Your task to perform on an android device: set an alarm Image 0: 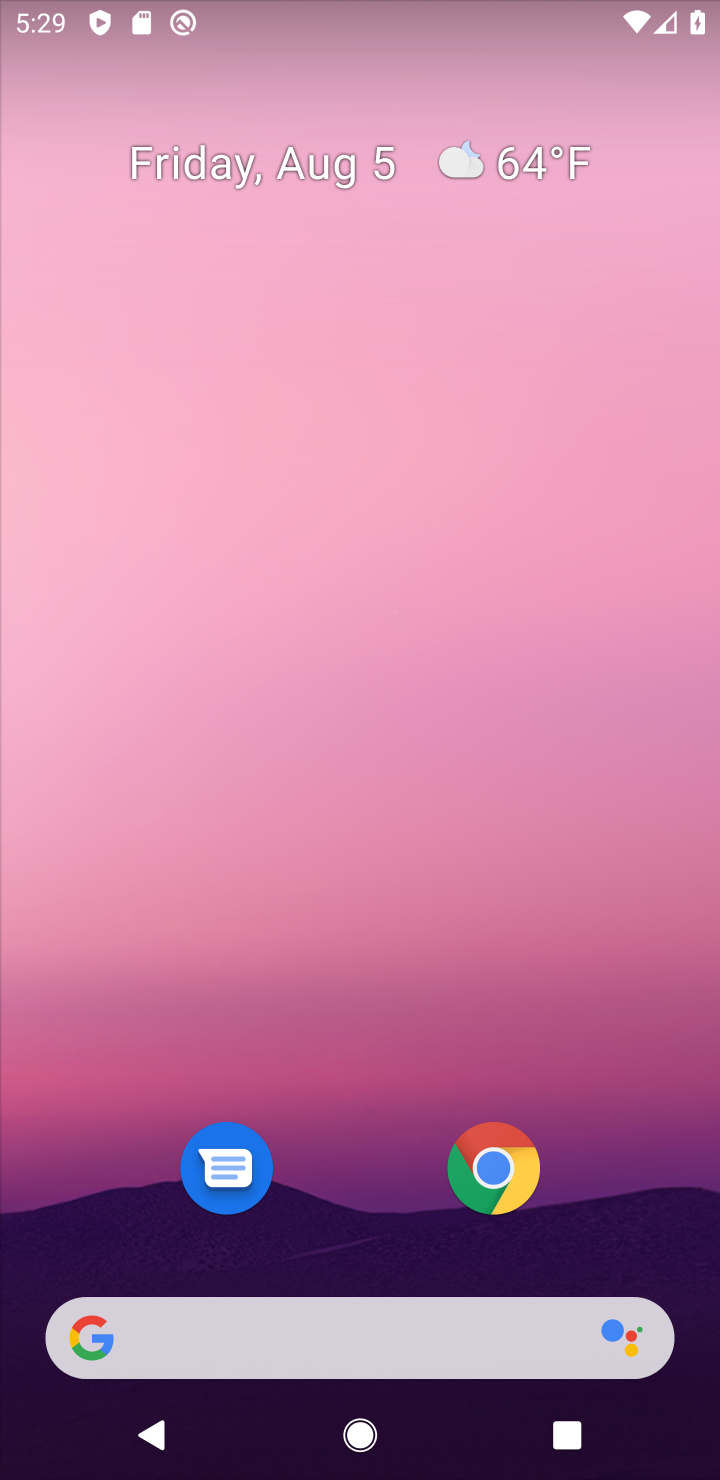
Step 0: press home button
Your task to perform on an android device: set an alarm Image 1: 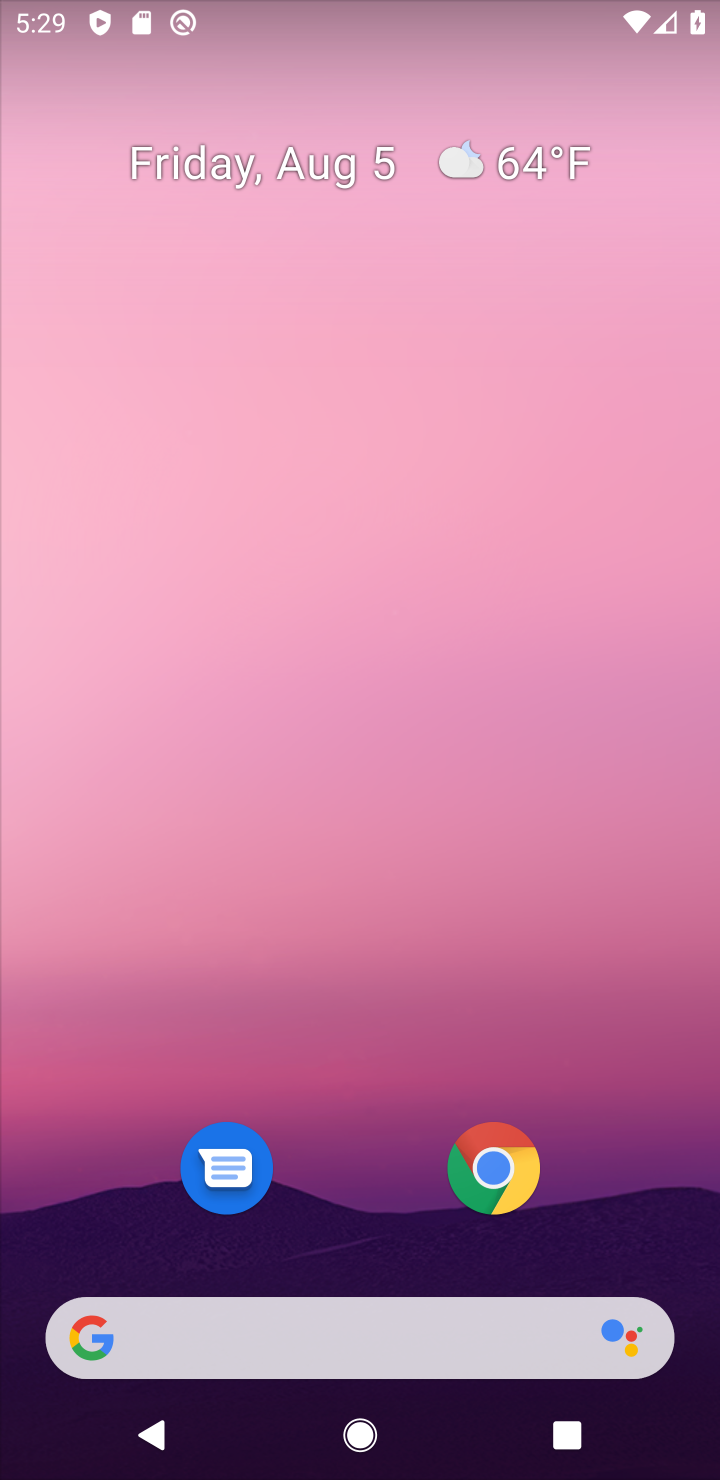
Step 1: drag from (349, 1121) to (465, 264)
Your task to perform on an android device: set an alarm Image 2: 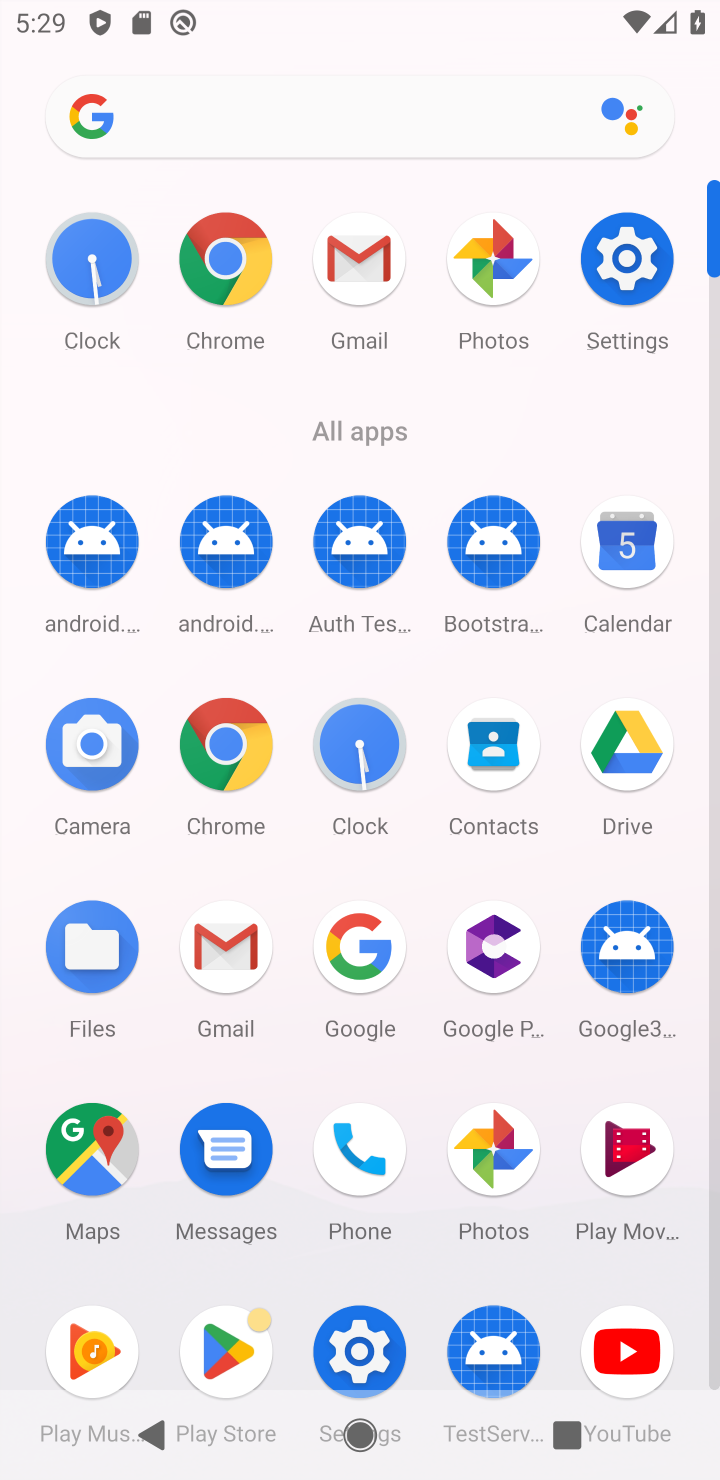
Step 2: click (75, 250)
Your task to perform on an android device: set an alarm Image 3: 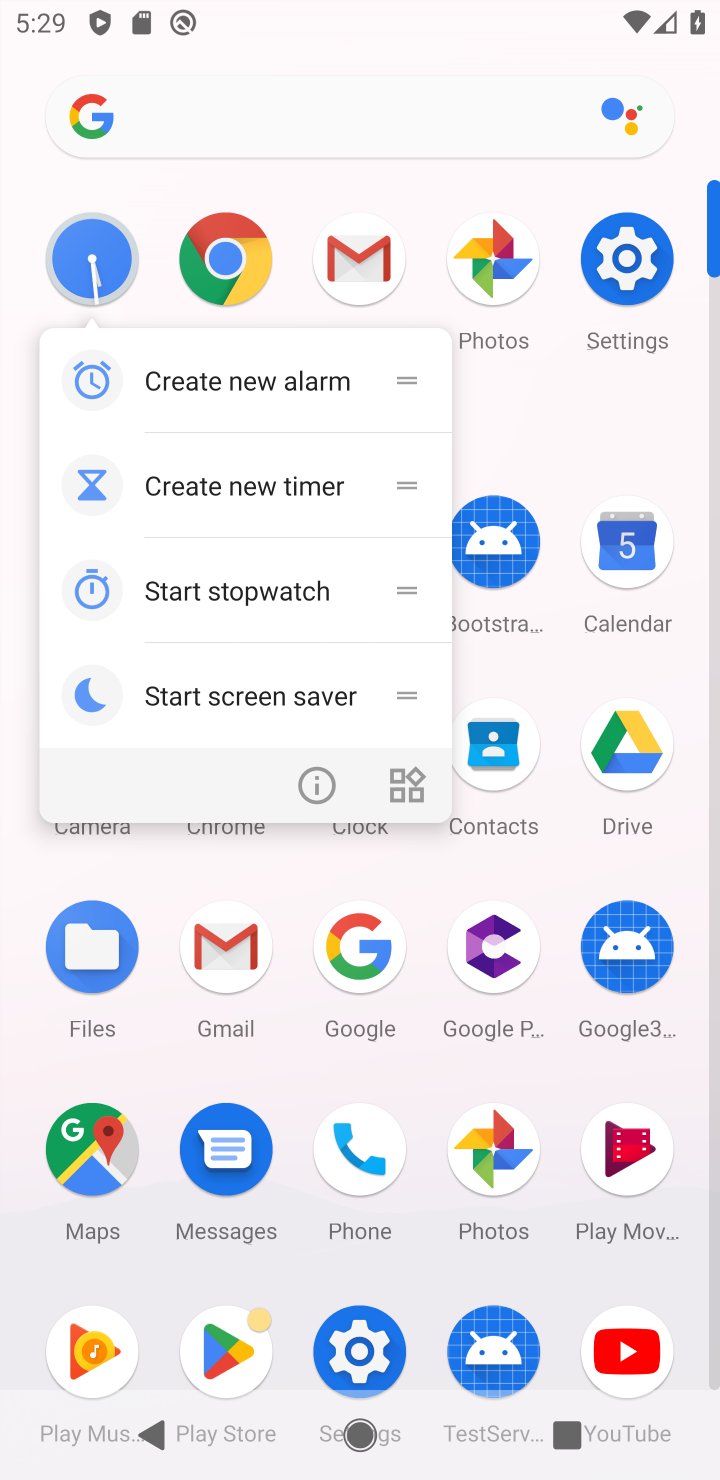
Step 3: click (75, 250)
Your task to perform on an android device: set an alarm Image 4: 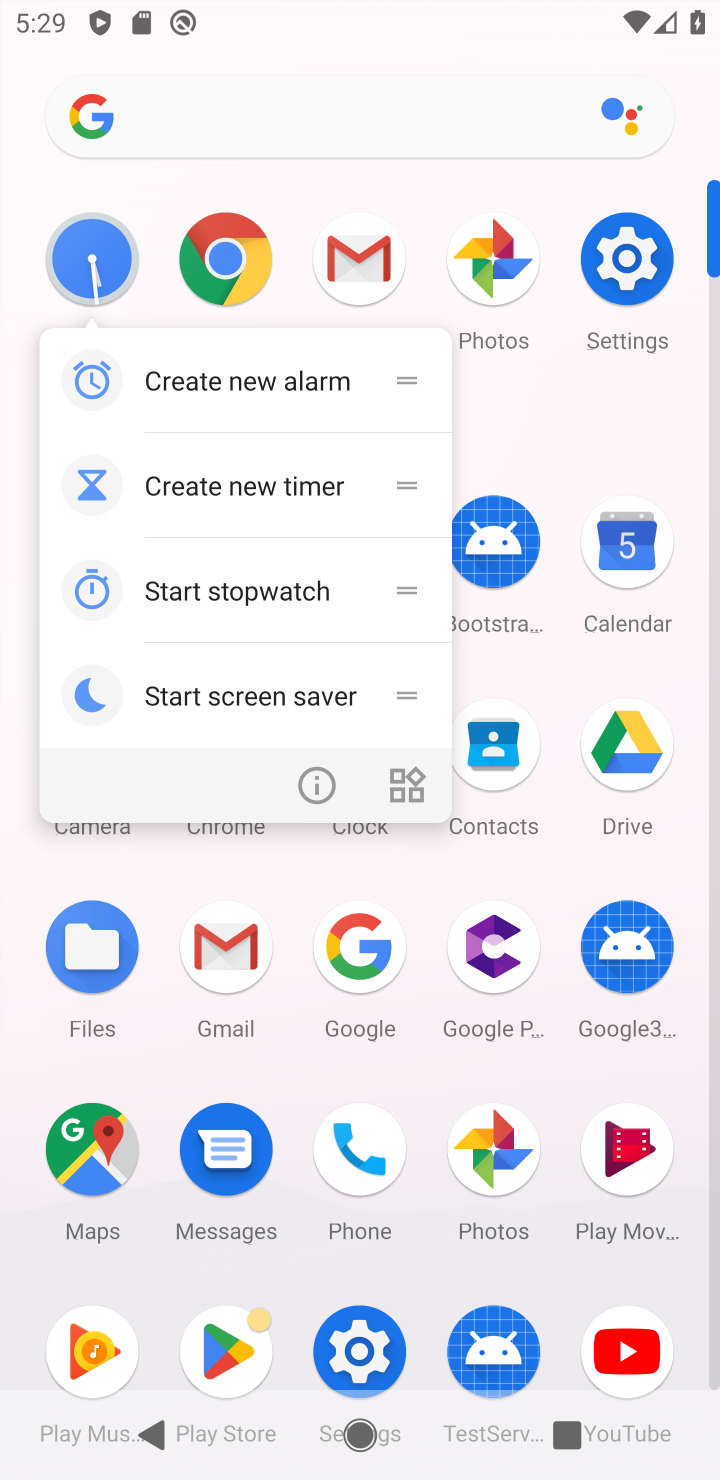
Step 4: click (75, 250)
Your task to perform on an android device: set an alarm Image 5: 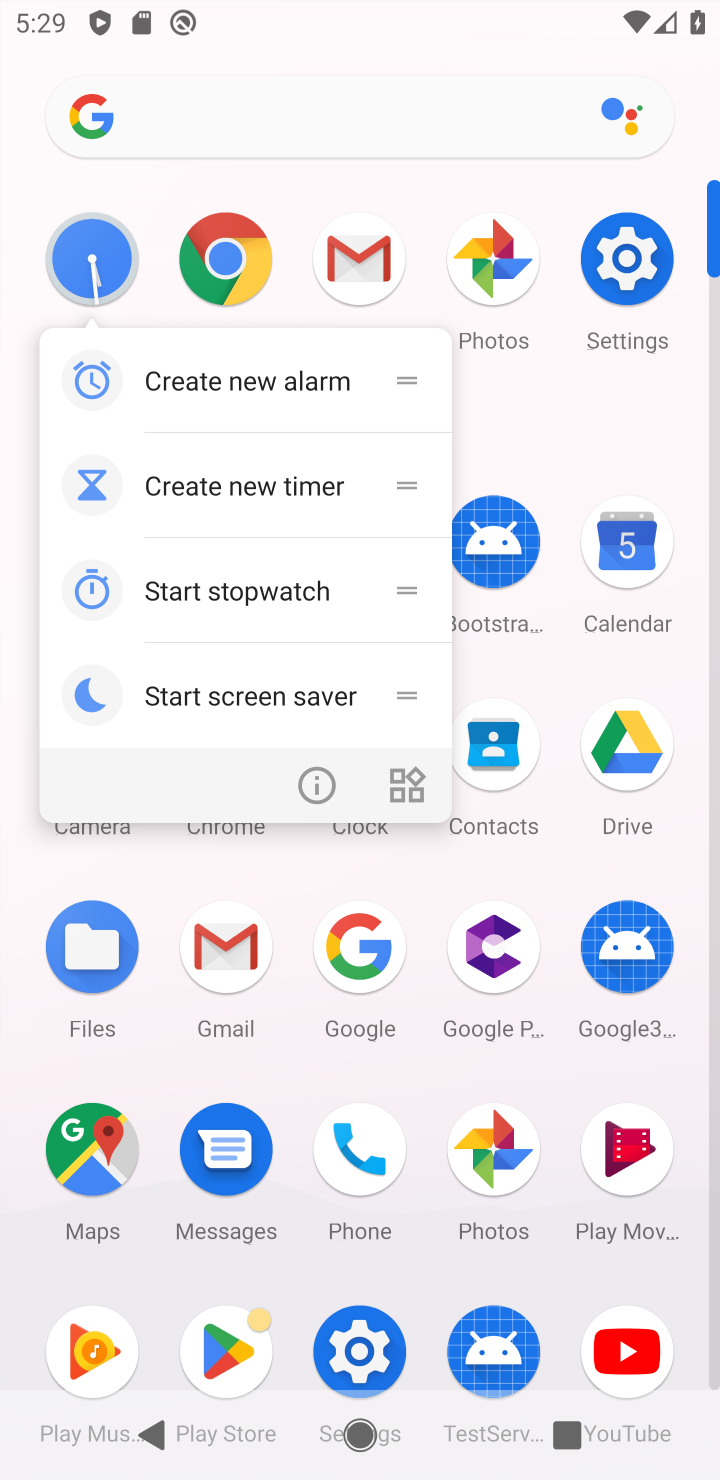
Step 5: click (79, 258)
Your task to perform on an android device: set an alarm Image 6: 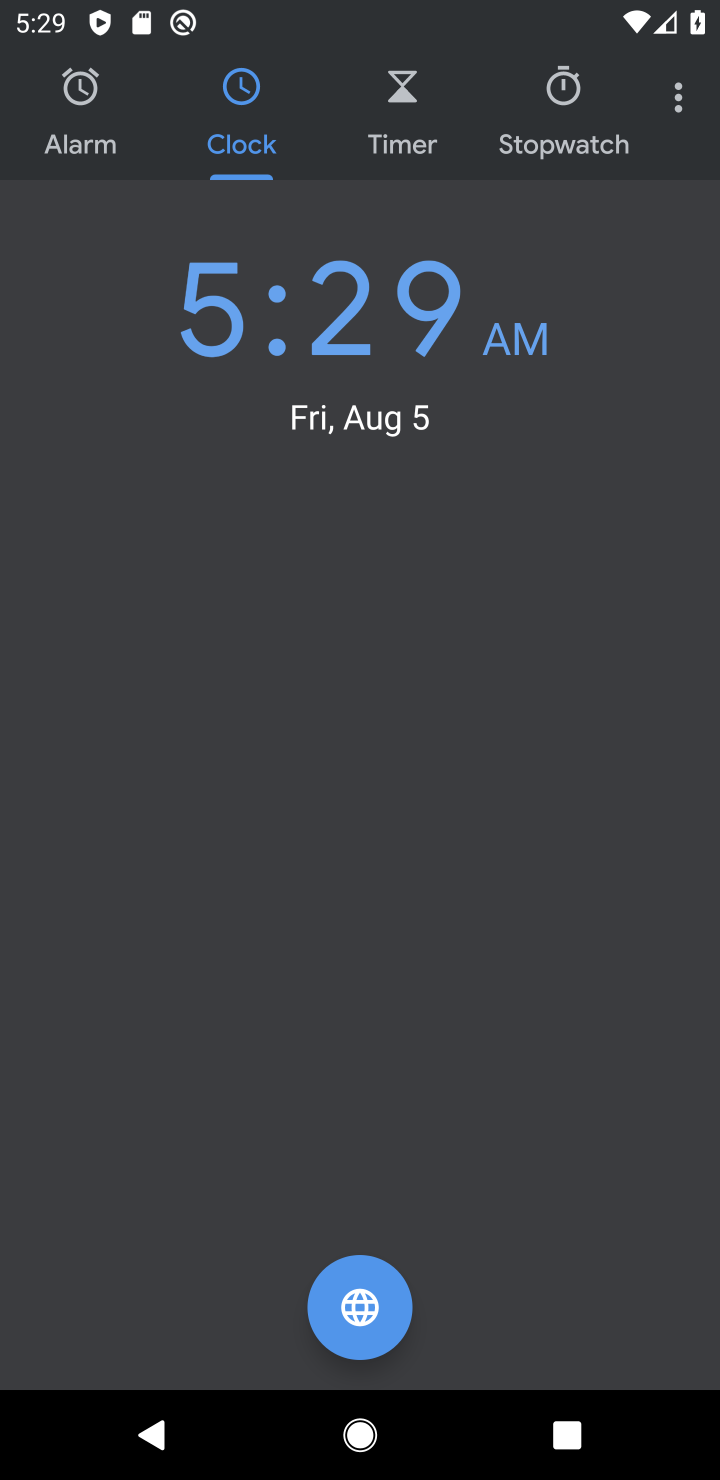
Step 6: click (69, 101)
Your task to perform on an android device: set an alarm Image 7: 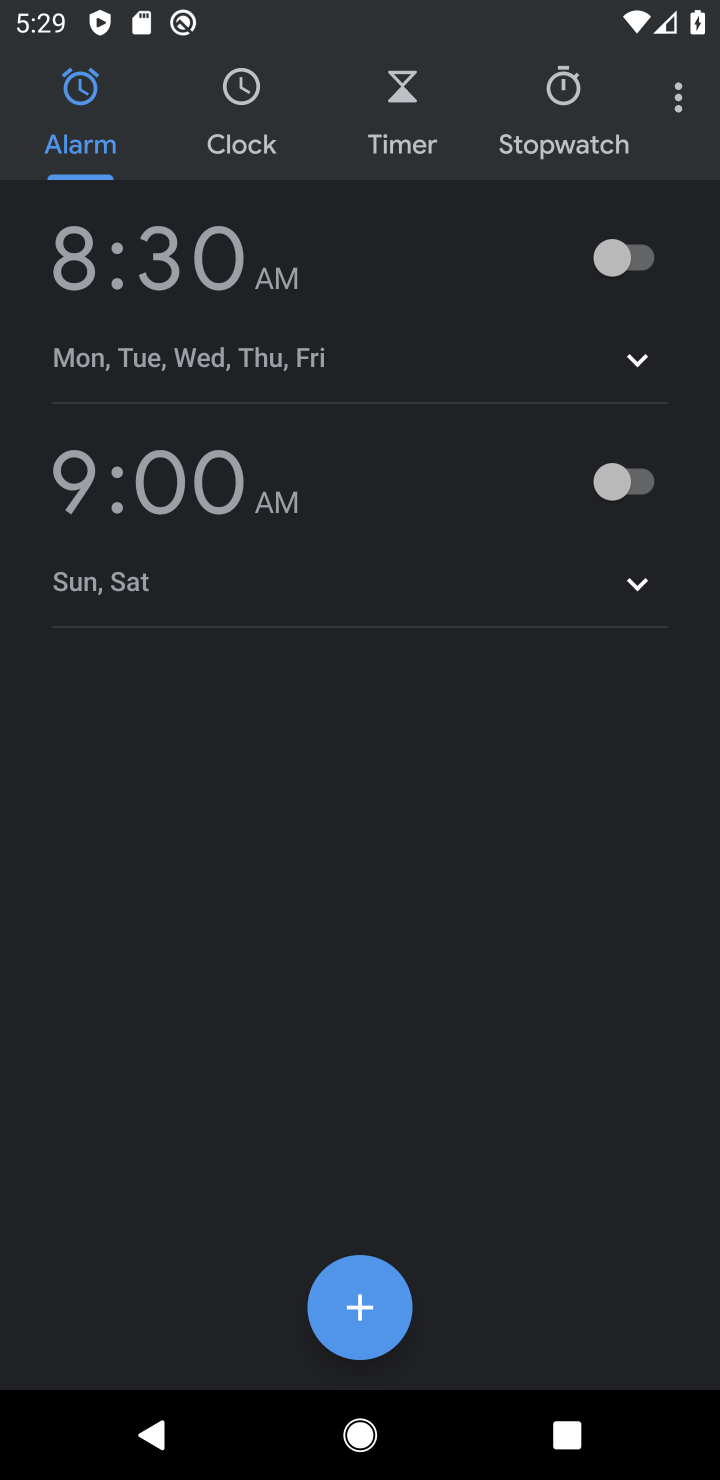
Step 7: click (626, 269)
Your task to perform on an android device: set an alarm Image 8: 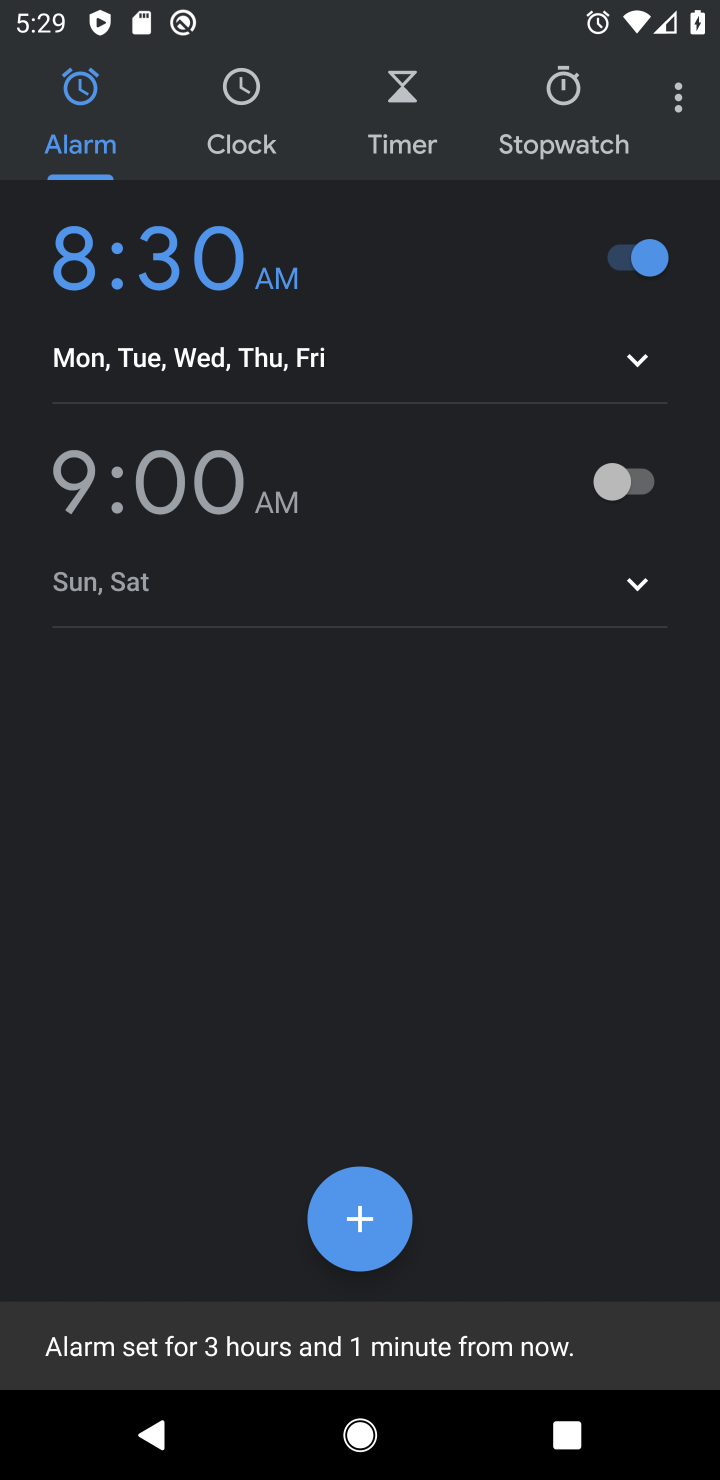
Step 8: task complete